Your task to perform on an android device: Turn off the flashlight Image 0: 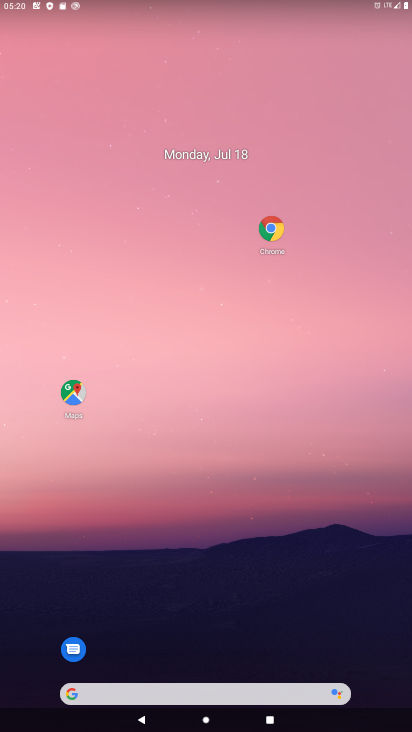
Step 0: drag from (172, 658) to (140, 94)
Your task to perform on an android device: Turn off the flashlight Image 1: 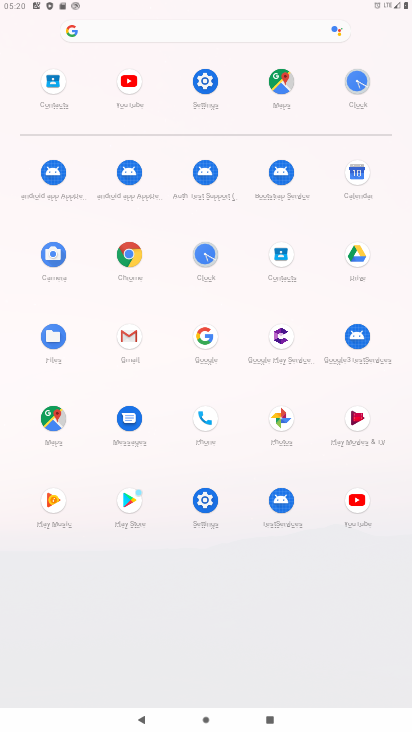
Step 1: click (214, 93)
Your task to perform on an android device: Turn off the flashlight Image 2: 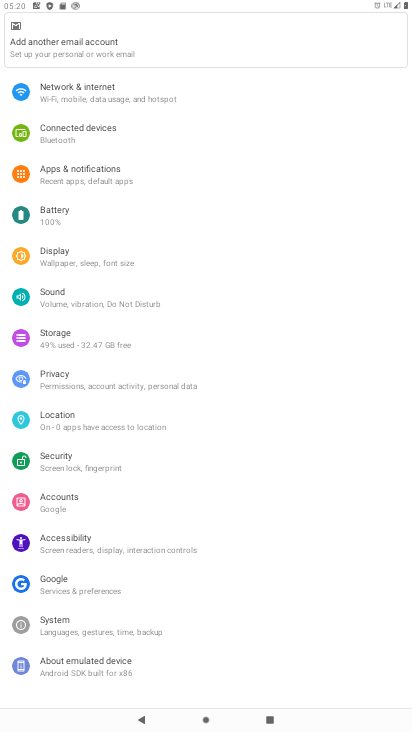
Step 2: task complete